Your task to perform on an android device: Open calendar and show me the second week of next month Image 0: 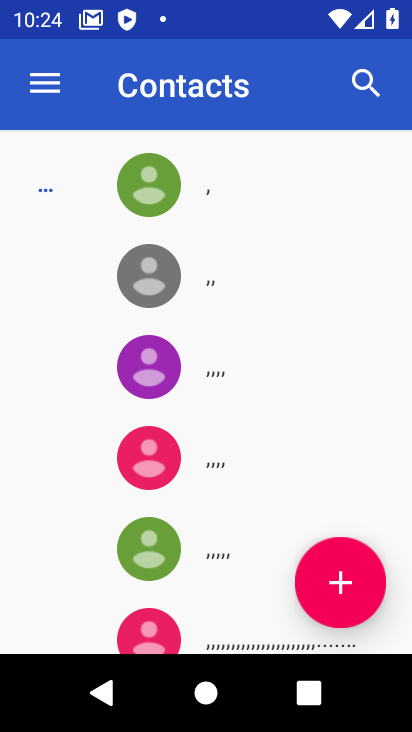
Step 0: press home button
Your task to perform on an android device: Open calendar and show me the second week of next month Image 1: 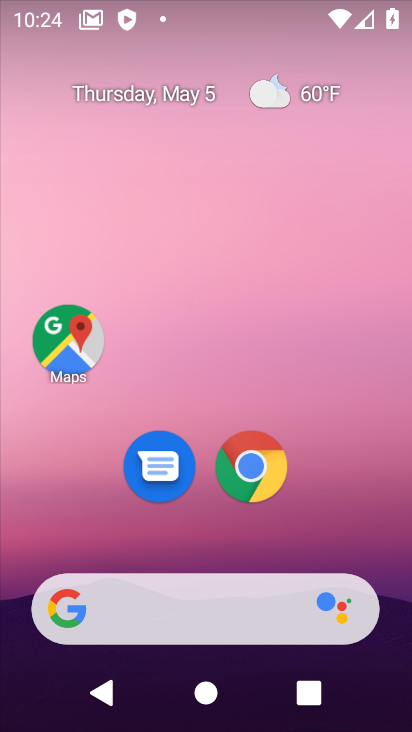
Step 1: drag from (249, 570) to (294, 224)
Your task to perform on an android device: Open calendar and show me the second week of next month Image 2: 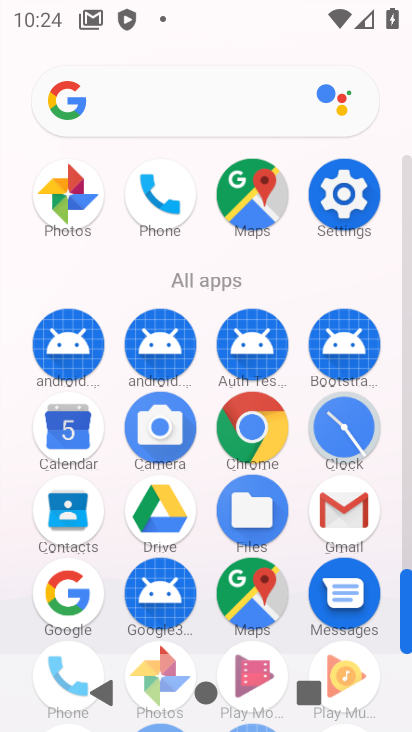
Step 2: click (61, 422)
Your task to perform on an android device: Open calendar and show me the second week of next month Image 3: 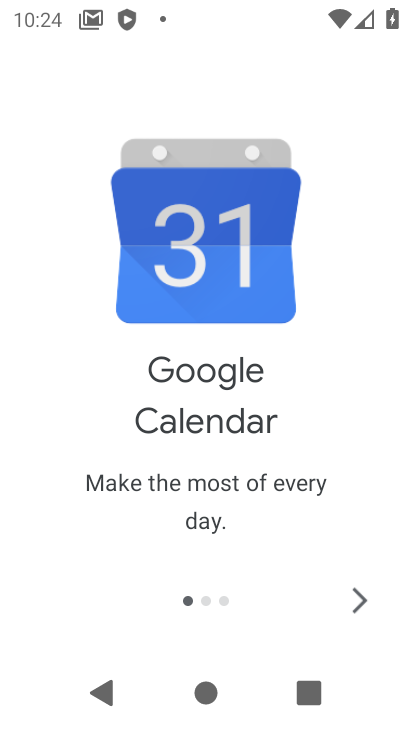
Step 3: click (361, 596)
Your task to perform on an android device: Open calendar and show me the second week of next month Image 4: 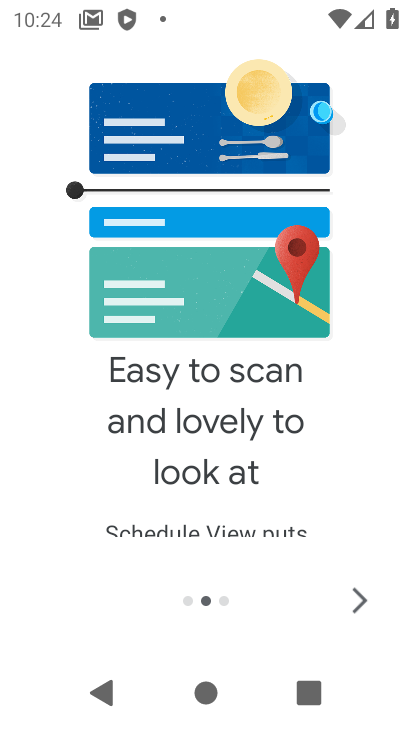
Step 4: click (361, 596)
Your task to perform on an android device: Open calendar and show me the second week of next month Image 5: 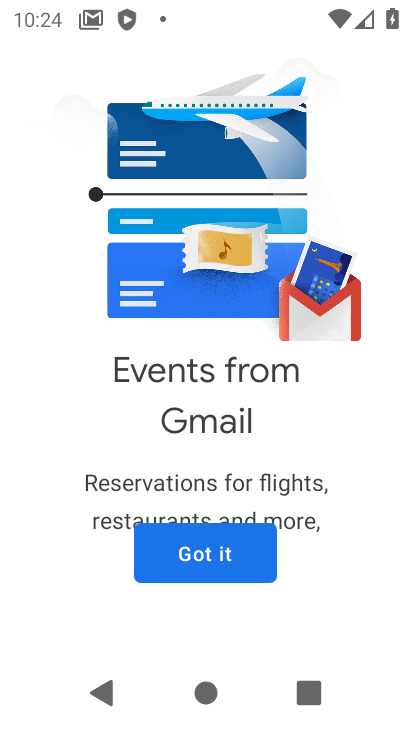
Step 5: click (221, 559)
Your task to perform on an android device: Open calendar and show me the second week of next month Image 6: 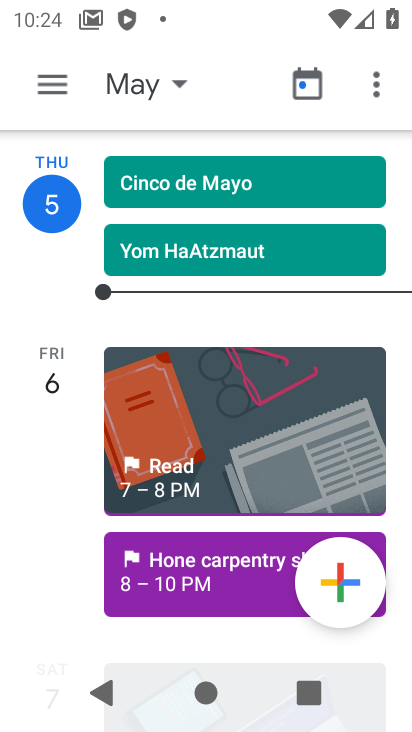
Step 6: click (147, 81)
Your task to perform on an android device: Open calendar and show me the second week of next month Image 7: 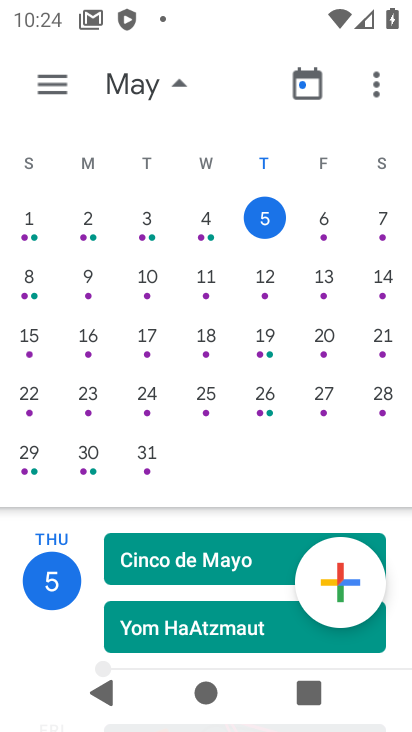
Step 7: drag from (386, 358) to (14, 300)
Your task to perform on an android device: Open calendar and show me the second week of next month Image 8: 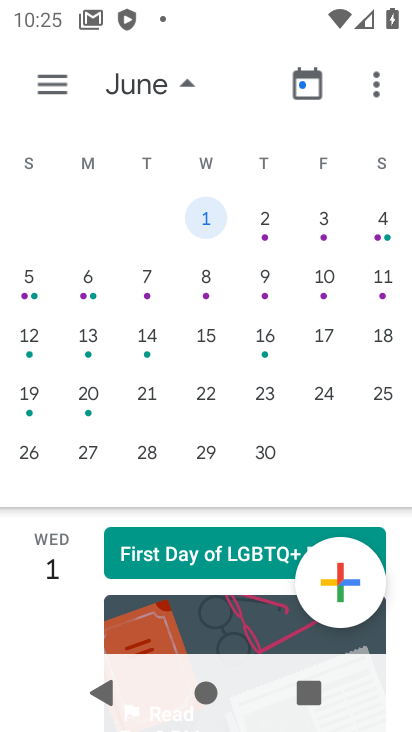
Step 8: click (29, 316)
Your task to perform on an android device: Open calendar and show me the second week of next month Image 9: 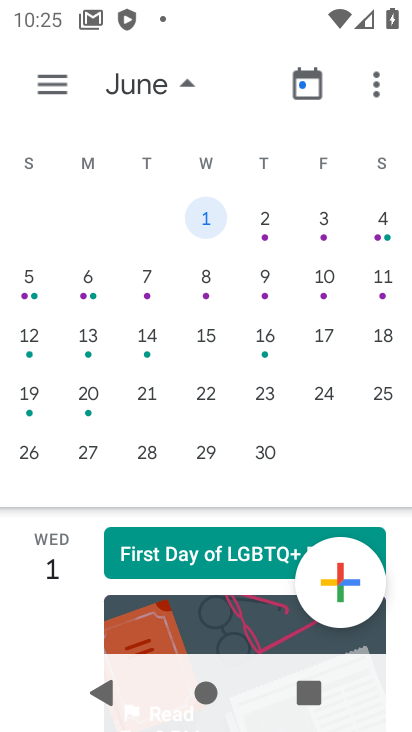
Step 9: click (35, 338)
Your task to perform on an android device: Open calendar and show me the second week of next month Image 10: 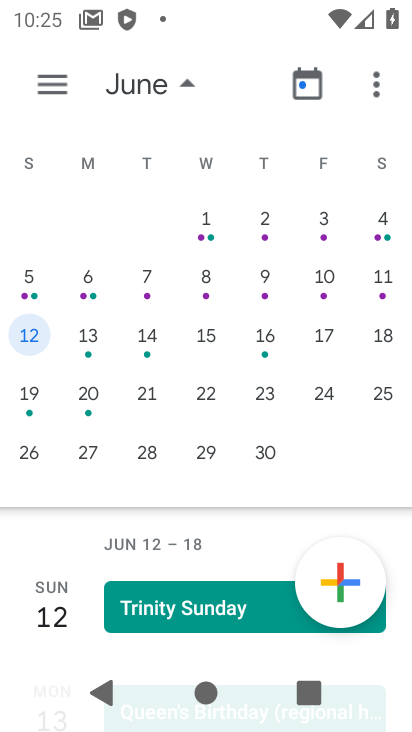
Step 10: task complete